Your task to perform on an android device: Do I have any events today? Image 0: 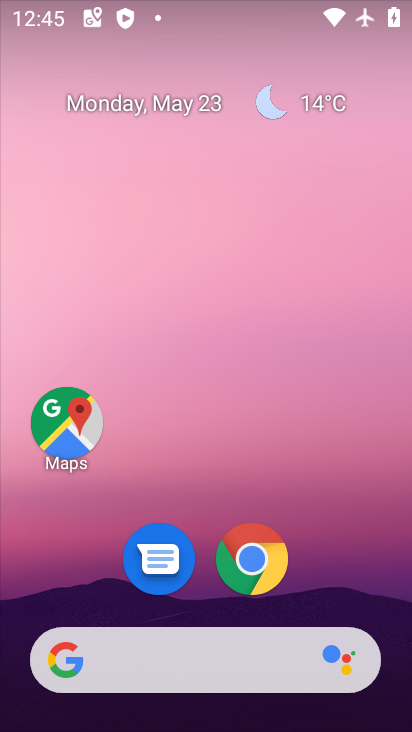
Step 0: drag from (358, 609) to (376, 40)
Your task to perform on an android device: Do I have any events today? Image 1: 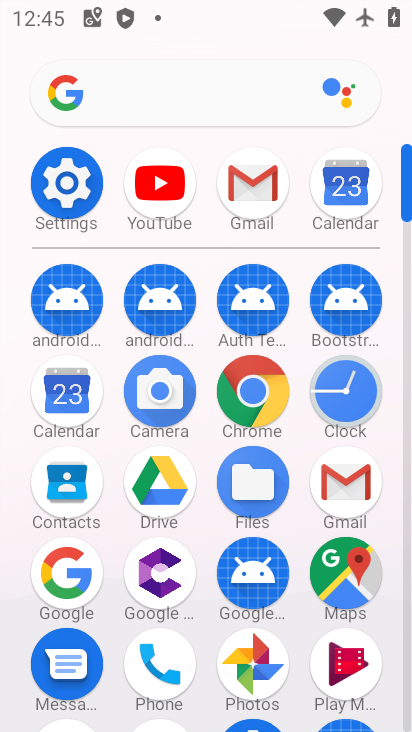
Step 1: click (341, 202)
Your task to perform on an android device: Do I have any events today? Image 2: 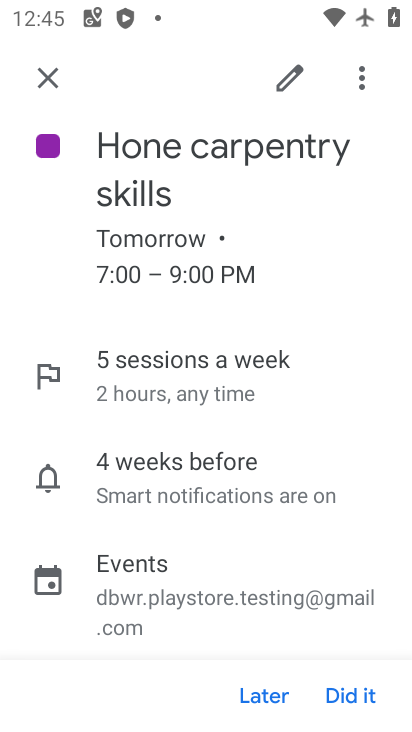
Step 2: click (46, 80)
Your task to perform on an android device: Do I have any events today? Image 3: 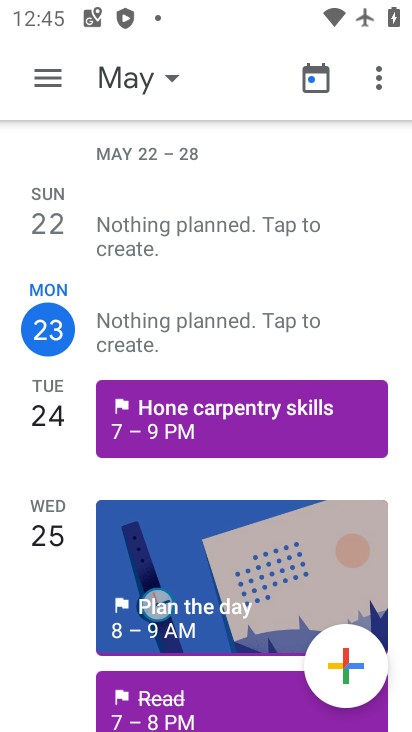
Step 3: click (159, 325)
Your task to perform on an android device: Do I have any events today? Image 4: 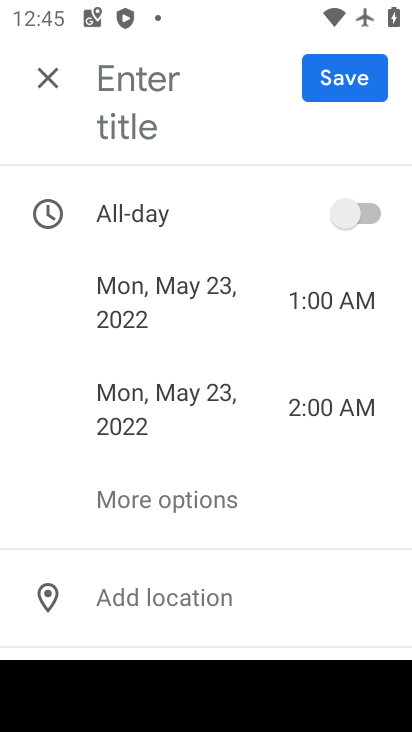
Step 4: task complete